Your task to perform on an android device: Clear the shopping cart on amazon.com. Search for lenovo thinkpad on amazon.com, select the first entry, and add it to the cart. Image 0: 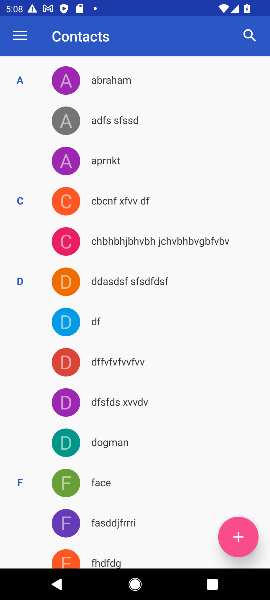
Step 0: press home button
Your task to perform on an android device: Clear the shopping cart on amazon.com. Search for lenovo thinkpad on amazon.com, select the first entry, and add it to the cart. Image 1: 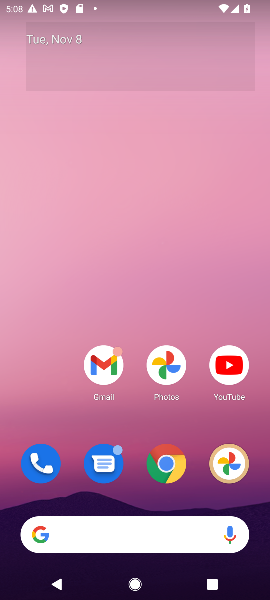
Step 1: click (152, 479)
Your task to perform on an android device: Clear the shopping cart on amazon.com. Search for lenovo thinkpad on amazon.com, select the first entry, and add it to the cart. Image 2: 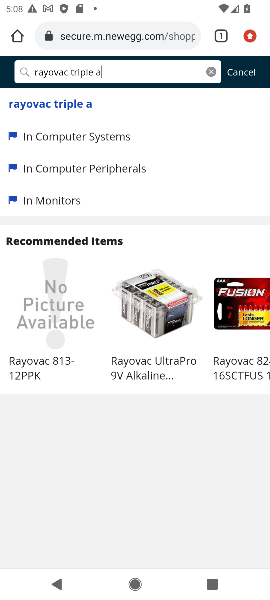
Step 2: click (114, 40)
Your task to perform on an android device: Clear the shopping cart on amazon.com. Search for lenovo thinkpad on amazon.com, select the first entry, and add it to the cart. Image 3: 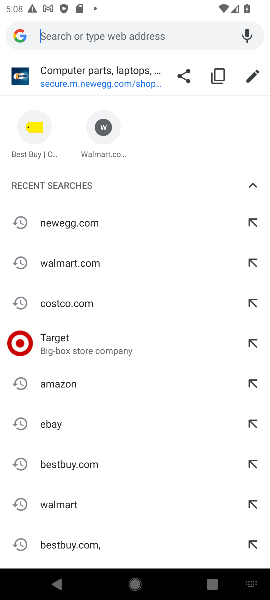
Step 3: click (23, 379)
Your task to perform on an android device: Clear the shopping cart on amazon.com. Search for lenovo thinkpad on amazon.com, select the first entry, and add it to the cart. Image 4: 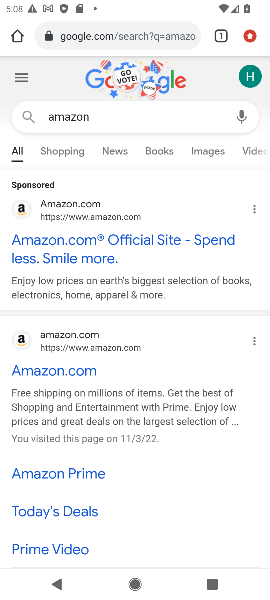
Step 4: click (58, 367)
Your task to perform on an android device: Clear the shopping cart on amazon.com. Search for lenovo thinkpad on amazon.com, select the first entry, and add it to the cart. Image 5: 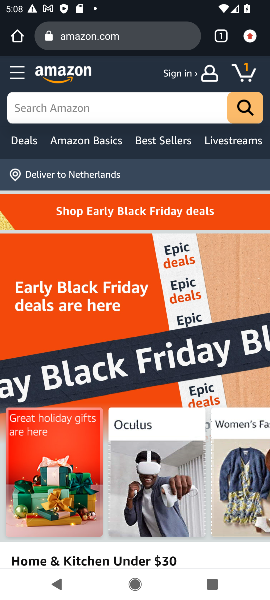
Step 5: click (242, 62)
Your task to perform on an android device: Clear the shopping cart on amazon.com. Search for lenovo thinkpad on amazon.com, select the first entry, and add it to the cart. Image 6: 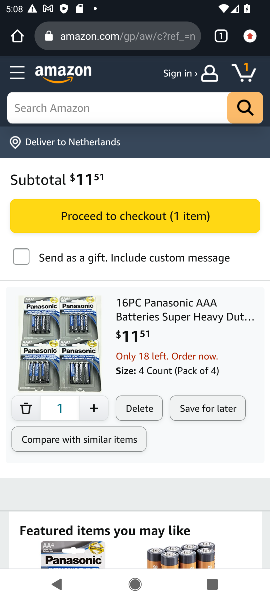
Step 6: click (143, 405)
Your task to perform on an android device: Clear the shopping cart on amazon.com. Search for lenovo thinkpad on amazon.com, select the first entry, and add it to the cart. Image 7: 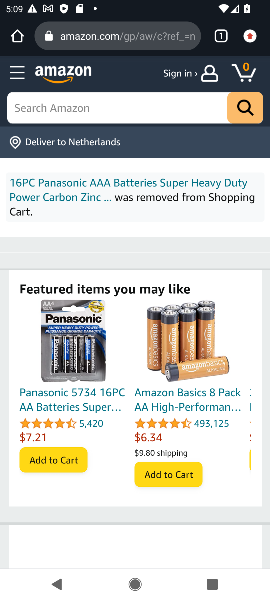
Step 7: click (107, 110)
Your task to perform on an android device: Clear the shopping cart on amazon.com. Search for lenovo thinkpad on amazon.com, select the first entry, and add it to the cart. Image 8: 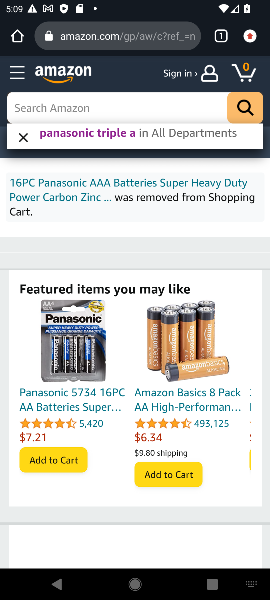
Step 8: type "lenovo thinkpad"
Your task to perform on an android device: Clear the shopping cart on amazon.com. Search for lenovo thinkpad on amazon.com, select the first entry, and add it to the cart. Image 9: 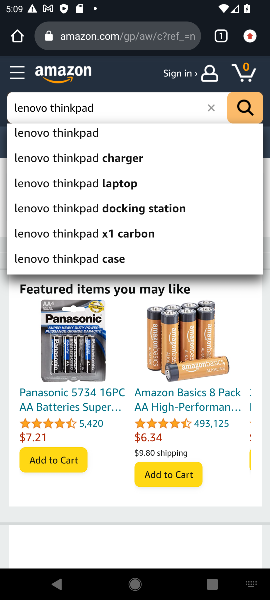
Step 9: click (251, 111)
Your task to perform on an android device: Clear the shopping cart on amazon.com. Search for lenovo thinkpad on amazon.com, select the first entry, and add it to the cart. Image 10: 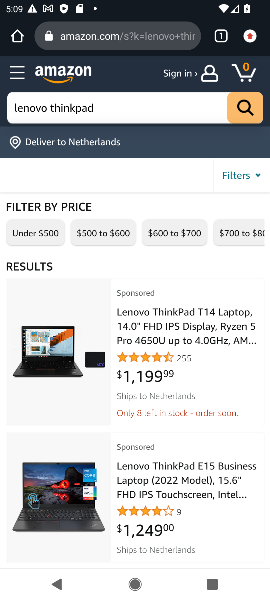
Step 10: click (193, 326)
Your task to perform on an android device: Clear the shopping cart on amazon.com. Search for lenovo thinkpad on amazon.com, select the first entry, and add it to the cart. Image 11: 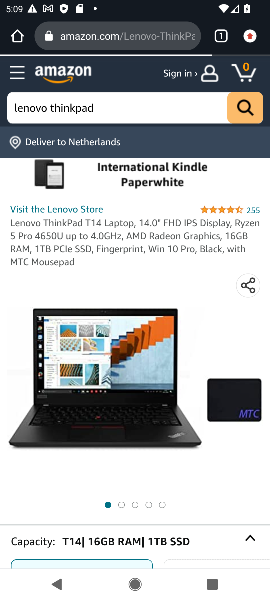
Step 11: drag from (68, 494) to (82, 102)
Your task to perform on an android device: Clear the shopping cart on amazon.com. Search for lenovo thinkpad on amazon.com, select the first entry, and add it to the cart. Image 12: 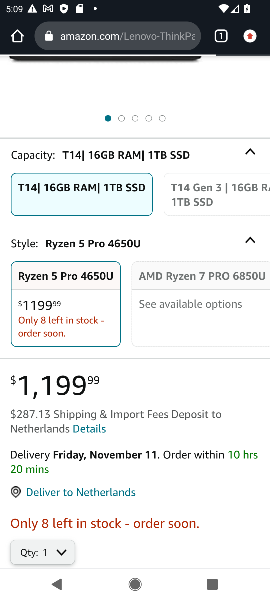
Step 12: drag from (143, 501) to (162, 155)
Your task to perform on an android device: Clear the shopping cart on amazon.com. Search for lenovo thinkpad on amazon.com, select the first entry, and add it to the cart. Image 13: 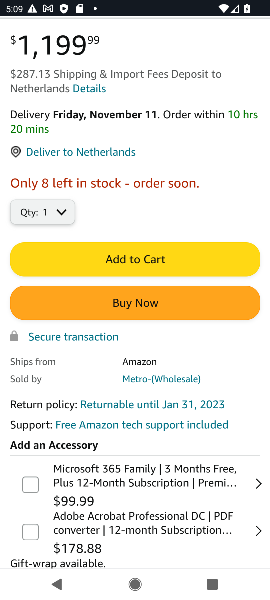
Step 13: click (102, 253)
Your task to perform on an android device: Clear the shopping cart on amazon.com. Search for lenovo thinkpad on amazon.com, select the first entry, and add it to the cart. Image 14: 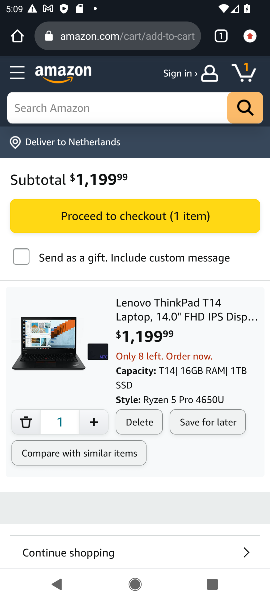
Step 14: task complete